Your task to perform on an android device: Open the calendar app, open the side menu, and click the "Day" option Image 0: 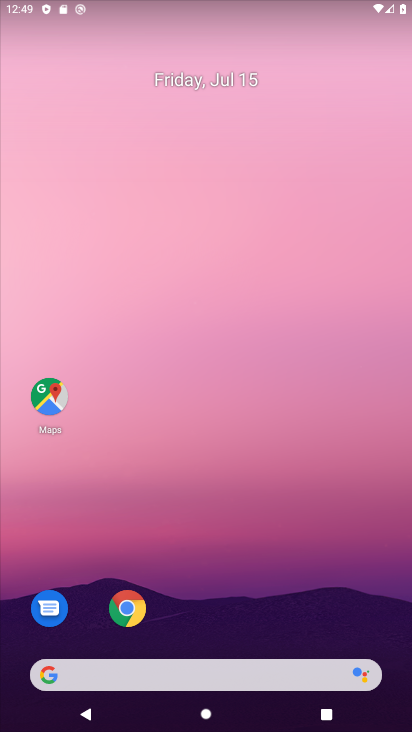
Step 0: drag from (331, 648) to (240, 45)
Your task to perform on an android device: Open the calendar app, open the side menu, and click the "Day" option Image 1: 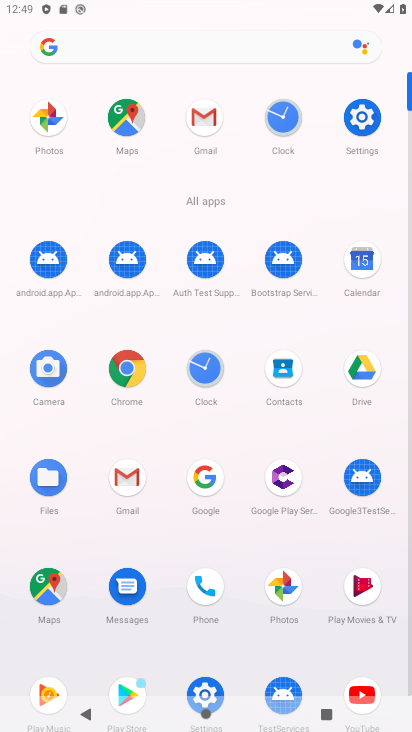
Step 1: click (365, 262)
Your task to perform on an android device: Open the calendar app, open the side menu, and click the "Day" option Image 2: 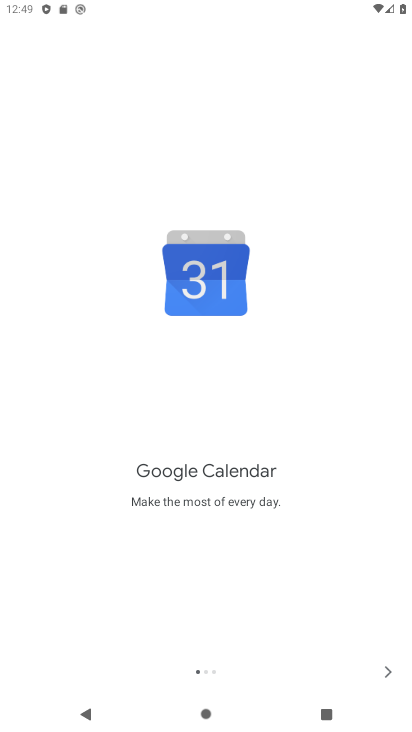
Step 2: click (391, 674)
Your task to perform on an android device: Open the calendar app, open the side menu, and click the "Day" option Image 3: 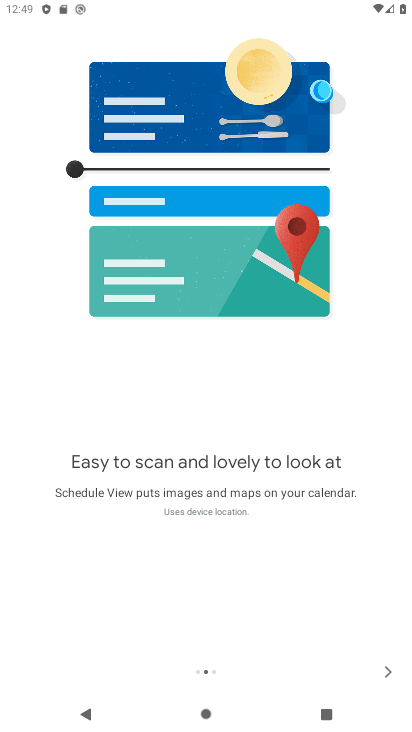
Step 3: click (391, 674)
Your task to perform on an android device: Open the calendar app, open the side menu, and click the "Day" option Image 4: 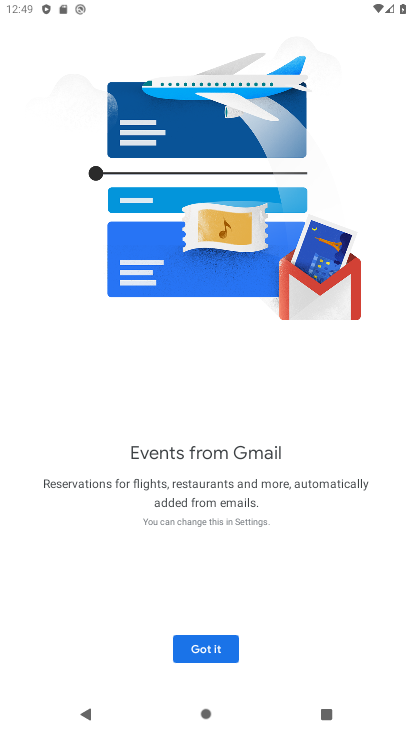
Step 4: click (198, 647)
Your task to perform on an android device: Open the calendar app, open the side menu, and click the "Day" option Image 5: 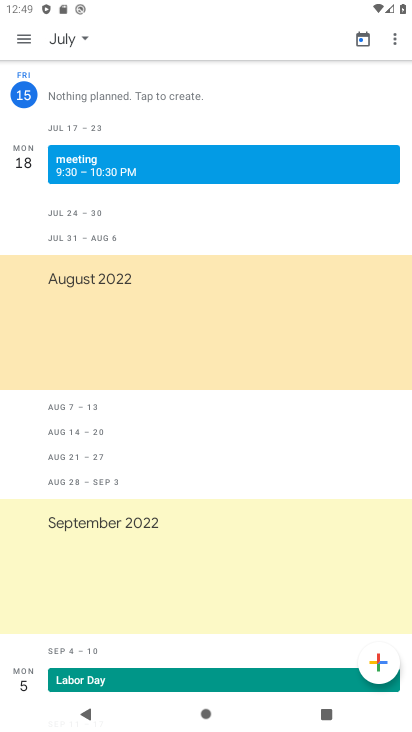
Step 5: click (23, 39)
Your task to perform on an android device: Open the calendar app, open the side menu, and click the "Day" option Image 6: 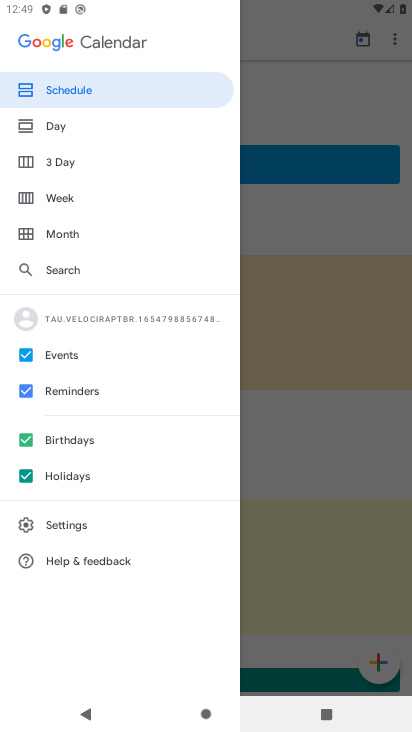
Step 6: click (52, 128)
Your task to perform on an android device: Open the calendar app, open the side menu, and click the "Day" option Image 7: 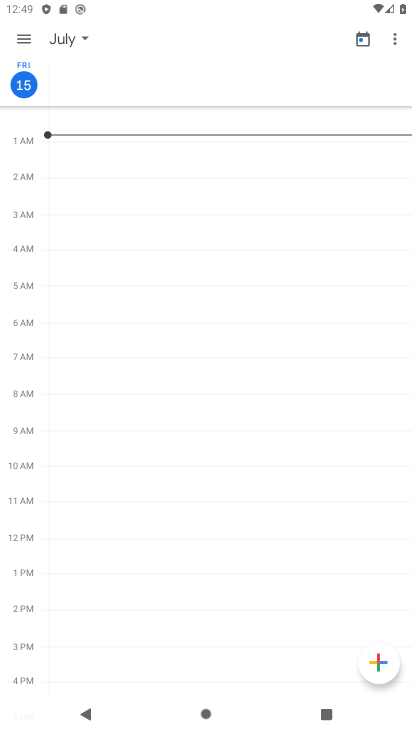
Step 7: task complete